Your task to perform on an android device: Search for sushi restaurants on Maps Image 0: 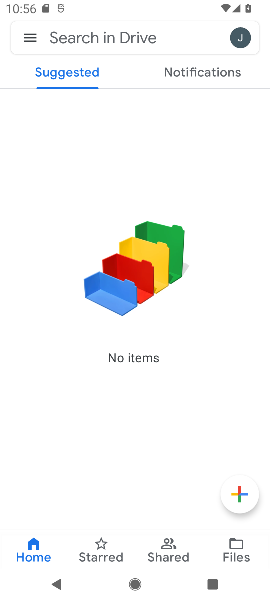
Step 0: press home button
Your task to perform on an android device: Search for sushi restaurants on Maps Image 1: 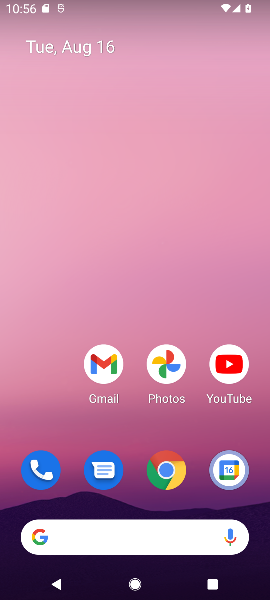
Step 1: drag from (46, 416) to (114, 0)
Your task to perform on an android device: Search for sushi restaurants on Maps Image 2: 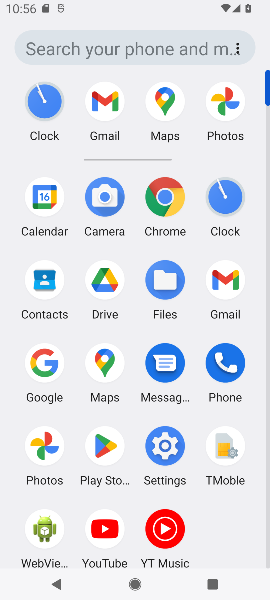
Step 2: click (165, 102)
Your task to perform on an android device: Search for sushi restaurants on Maps Image 3: 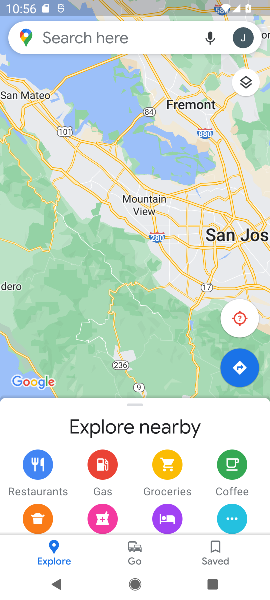
Step 3: click (136, 37)
Your task to perform on an android device: Search for sushi restaurants on Maps Image 4: 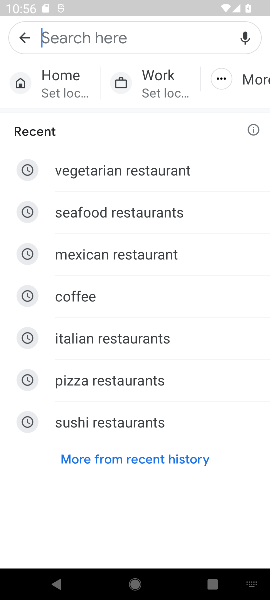
Step 4: click (99, 420)
Your task to perform on an android device: Search for sushi restaurants on Maps Image 5: 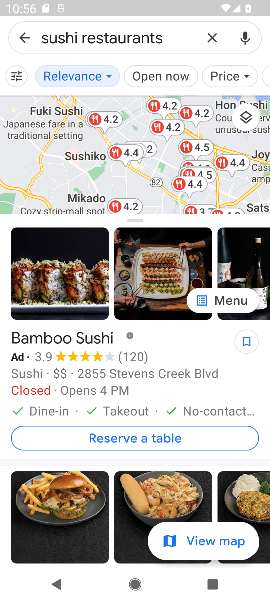
Step 5: task complete